Your task to perform on an android device: turn on data saver in the chrome app Image 0: 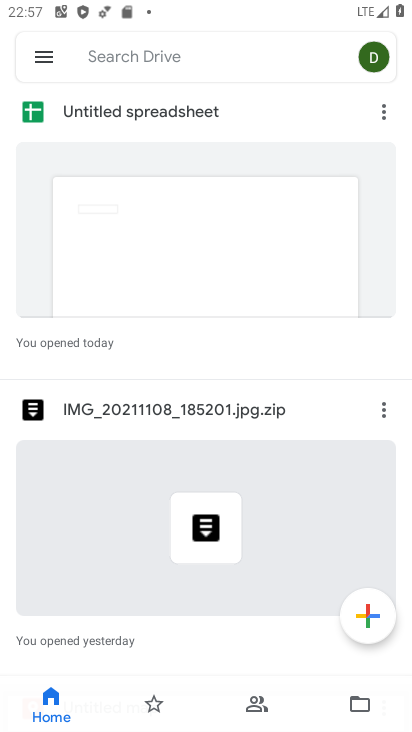
Step 0: press home button
Your task to perform on an android device: turn on data saver in the chrome app Image 1: 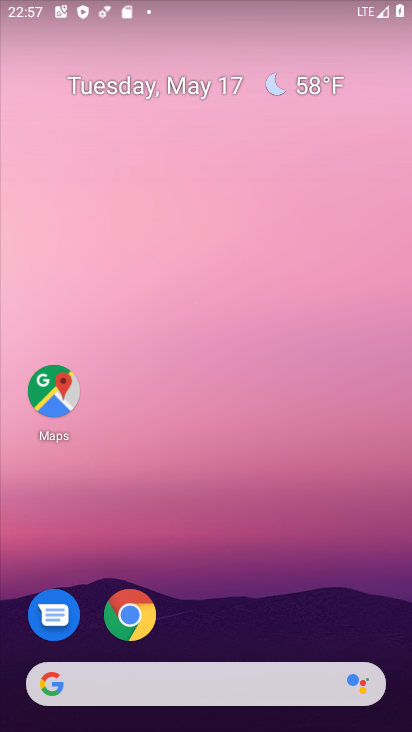
Step 1: click (147, 604)
Your task to perform on an android device: turn on data saver in the chrome app Image 2: 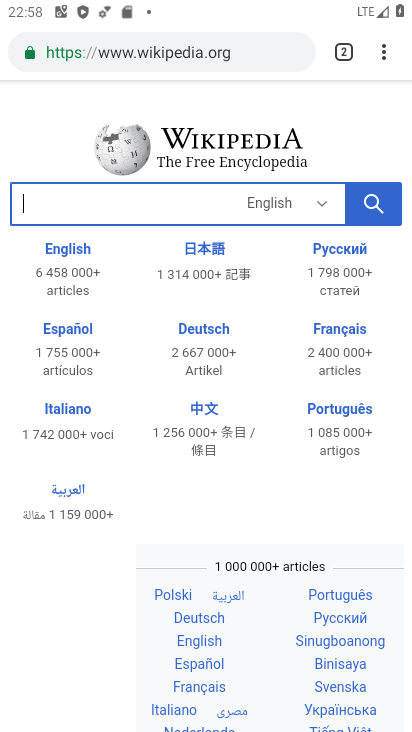
Step 2: click (378, 45)
Your task to perform on an android device: turn on data saver in the chrome app Image 3: 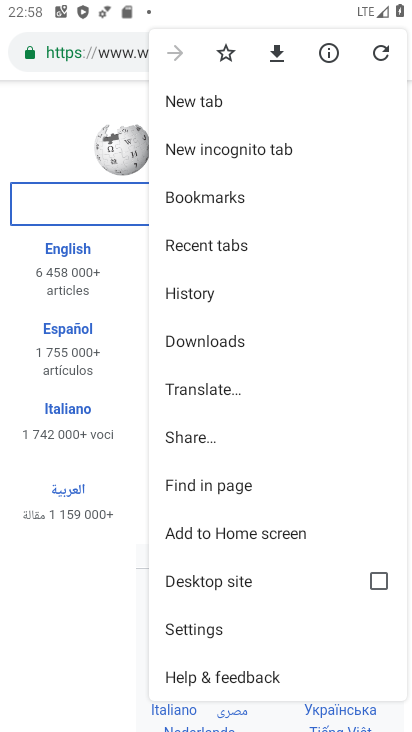
Step 3: click (209, 622)
Your task to perform on an android device: turn on data saver in the chrome app Image 4: 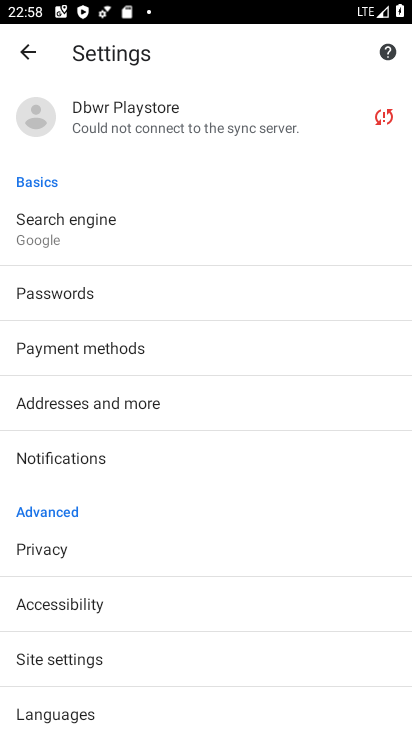
Step 4: drag from (209, 622) to (213, 352)
Your task to perform on an android device: turn on data saver in the chrome app Image 5: 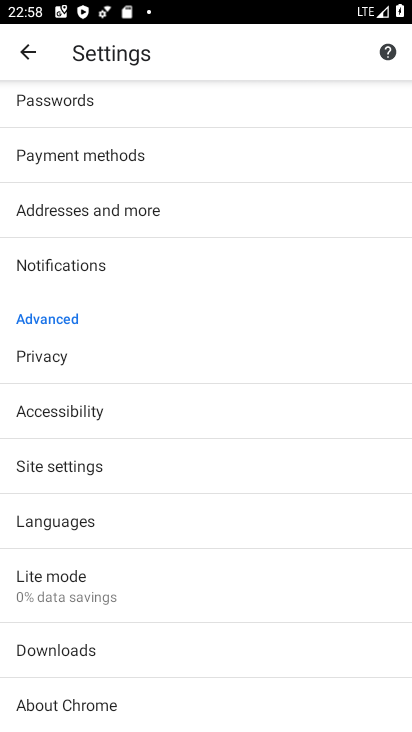
Step 5: click (119, 631)
Your task to perform on an android device: turn on data saver in the chrome app Image 6: 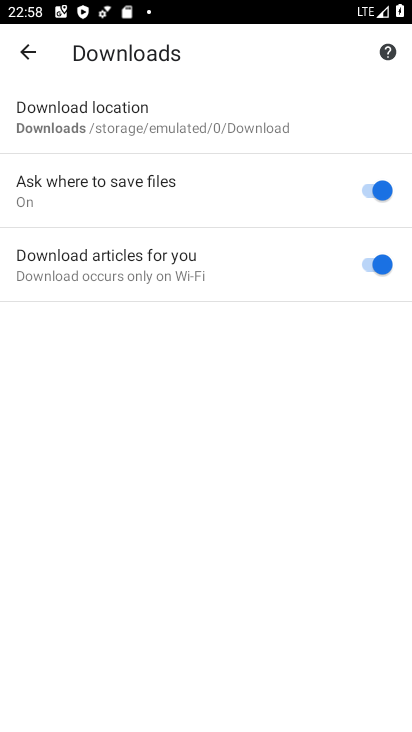
Step 6: click (22, 52)
Your task to perform on an android device: turn on data saver in the chrome app Image 7: 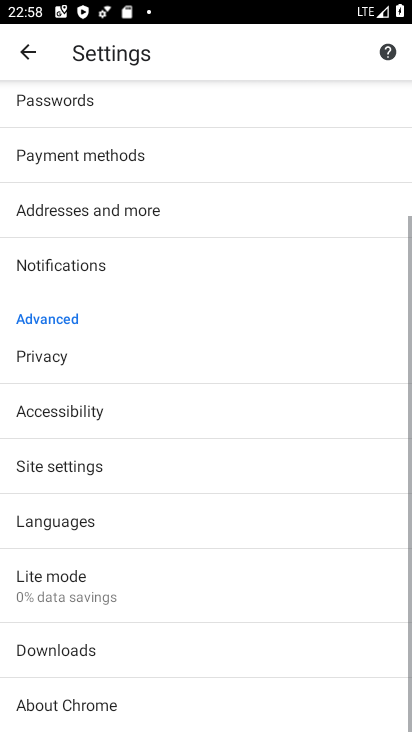
Step 7: click (142, 587)
Your task to perform on an android device: turn on data saver in the chrome app Image 8: 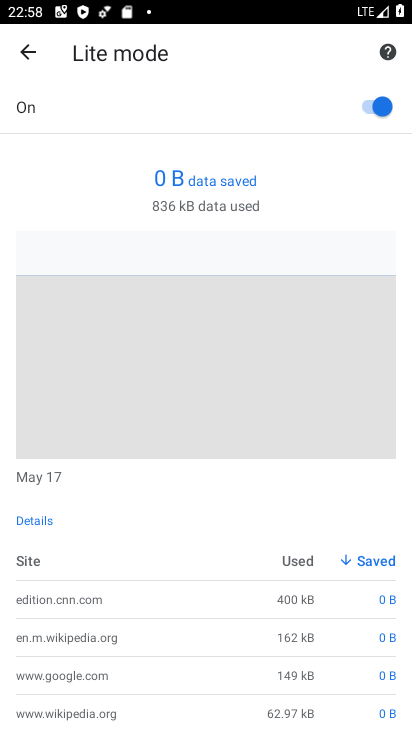
Step 8: task complete